Your task to perform on an android device: Search for sushi restaurants on Maps Image 0: 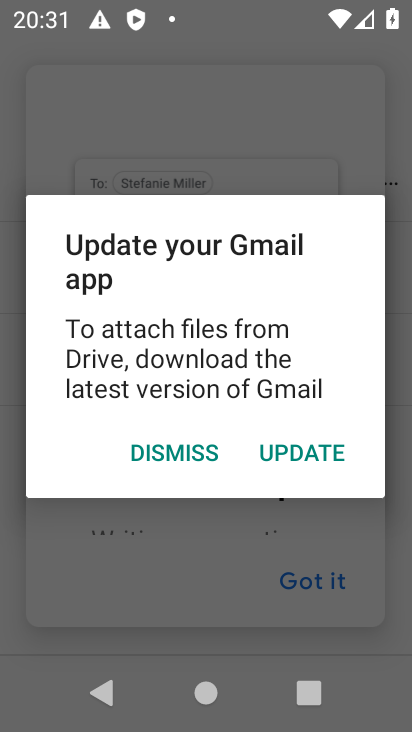
Step 0: press home button
Your task to perform on an android device: Search for sushi restaurants on Maps Image 1: 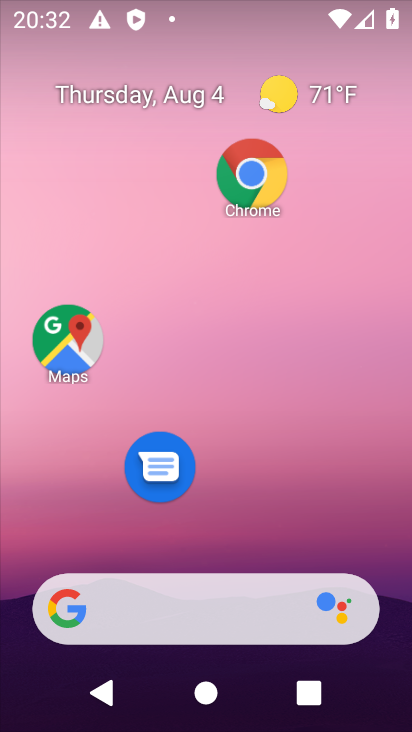
Step 1: drag from (251, 551) to (286, 45)
Your task to perform on an android device: Search for sushi restaurants on Maps Image 2: 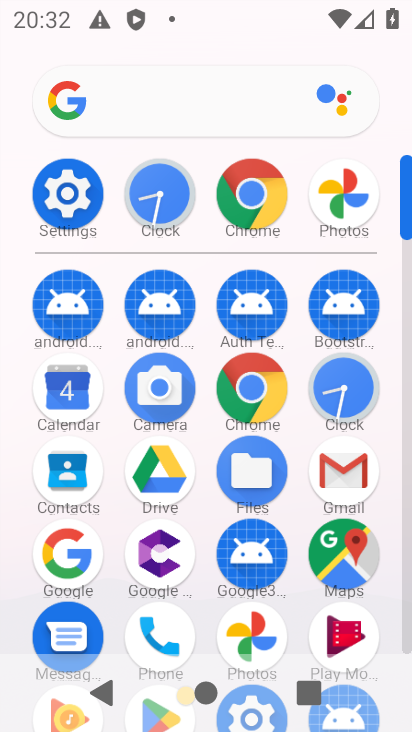
Step 2: click (349, 546)
Your task to perform on an android device: Search for sushi restaurants on Maps Image 3: 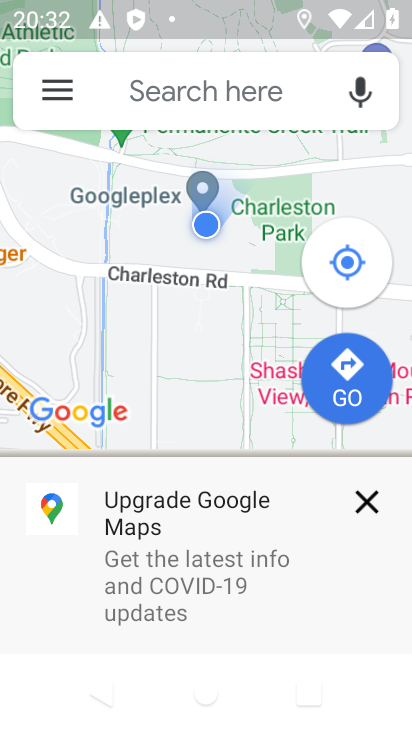
Step 3: click (144, 90)
Your task to perform on an android device: Search for sushi restaurants on Maps Image 4: 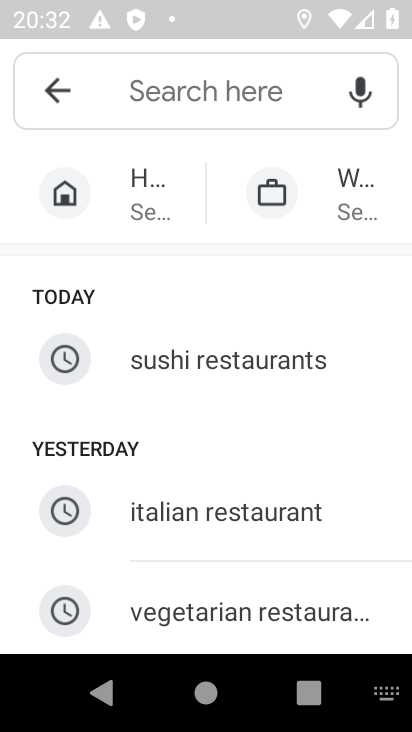
Step 4: type " sushi restaurants"
Your task to perform on an android device: Search for sushi restaurants on Maps Image 5: 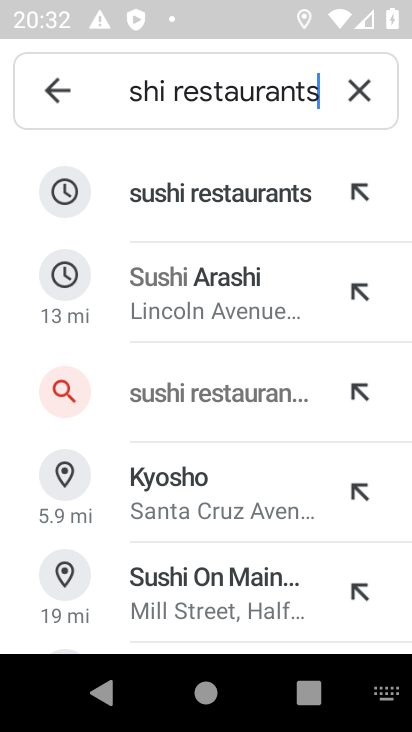
Step 5: click (217, 199)
Your task to perform on an android device: Search for sushi restaurants on Maps Image 6: 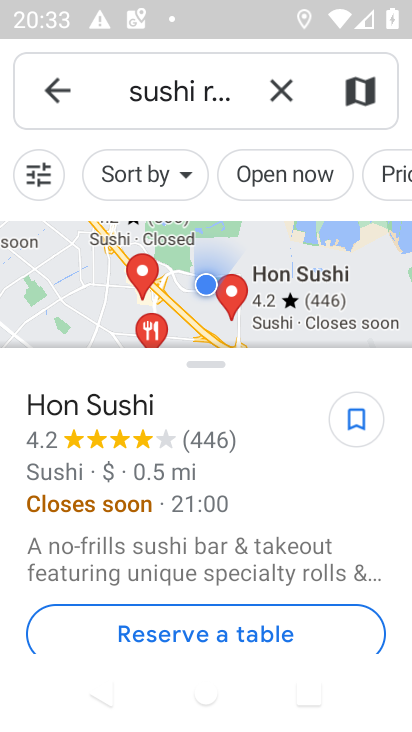
Step 6: task complete